Your task to perform on an android device: turn off priority inbox in the gmail app Image 0: 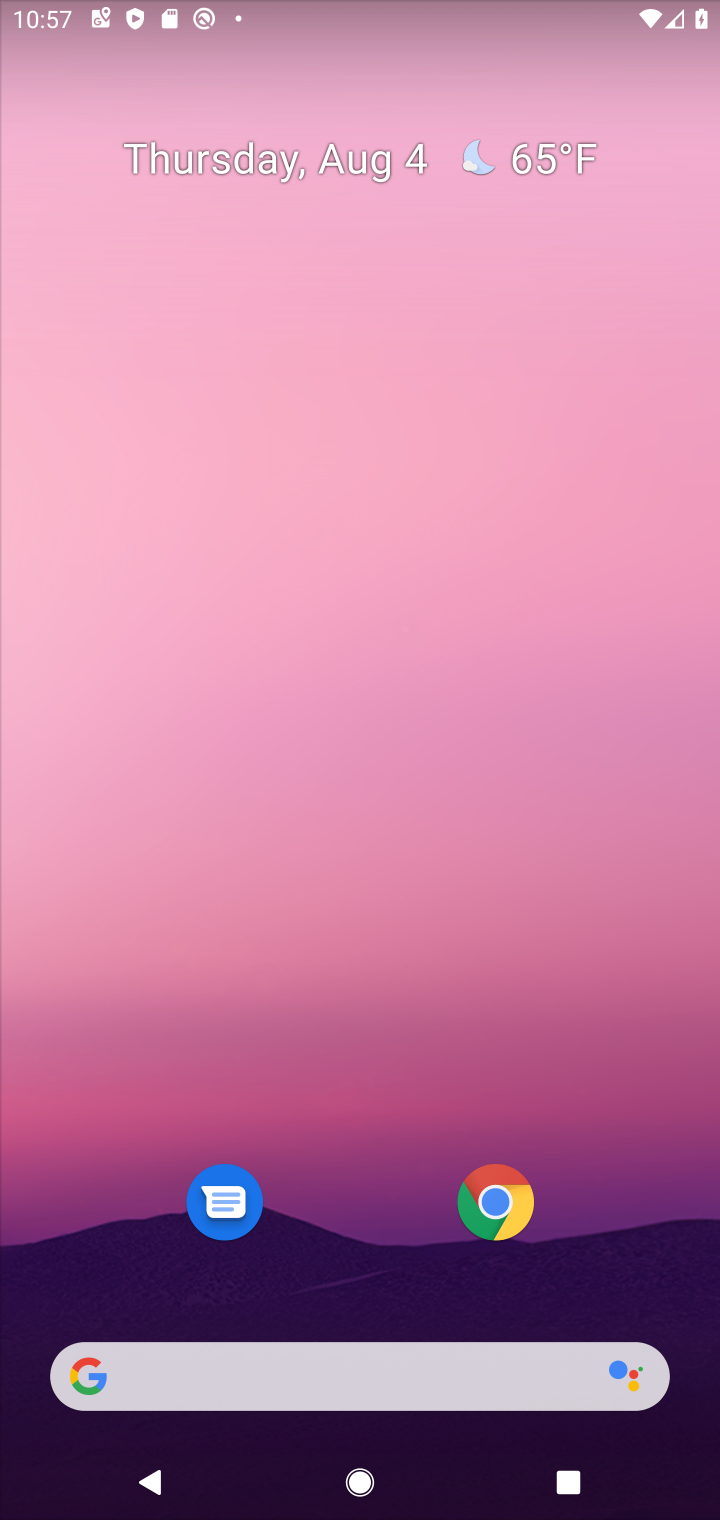
Step 0: drag from (334, 1088) to (330, 356)
Your task to perform on an android device: turn off priority inbox in the gmail app Image 1: 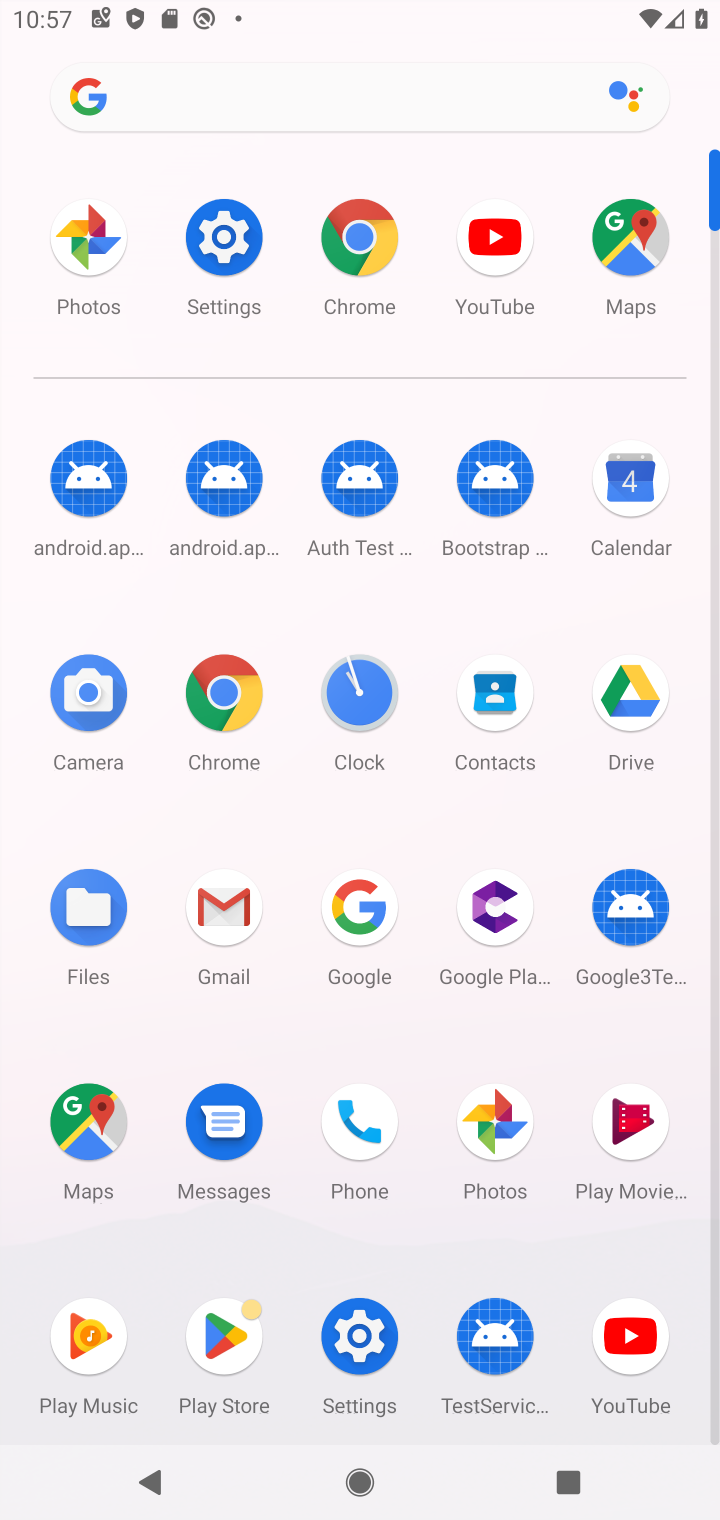
Step 1: click (193, 895)
Your task to perform on an android device: turn off priority inbox in the gmail app Image 2: 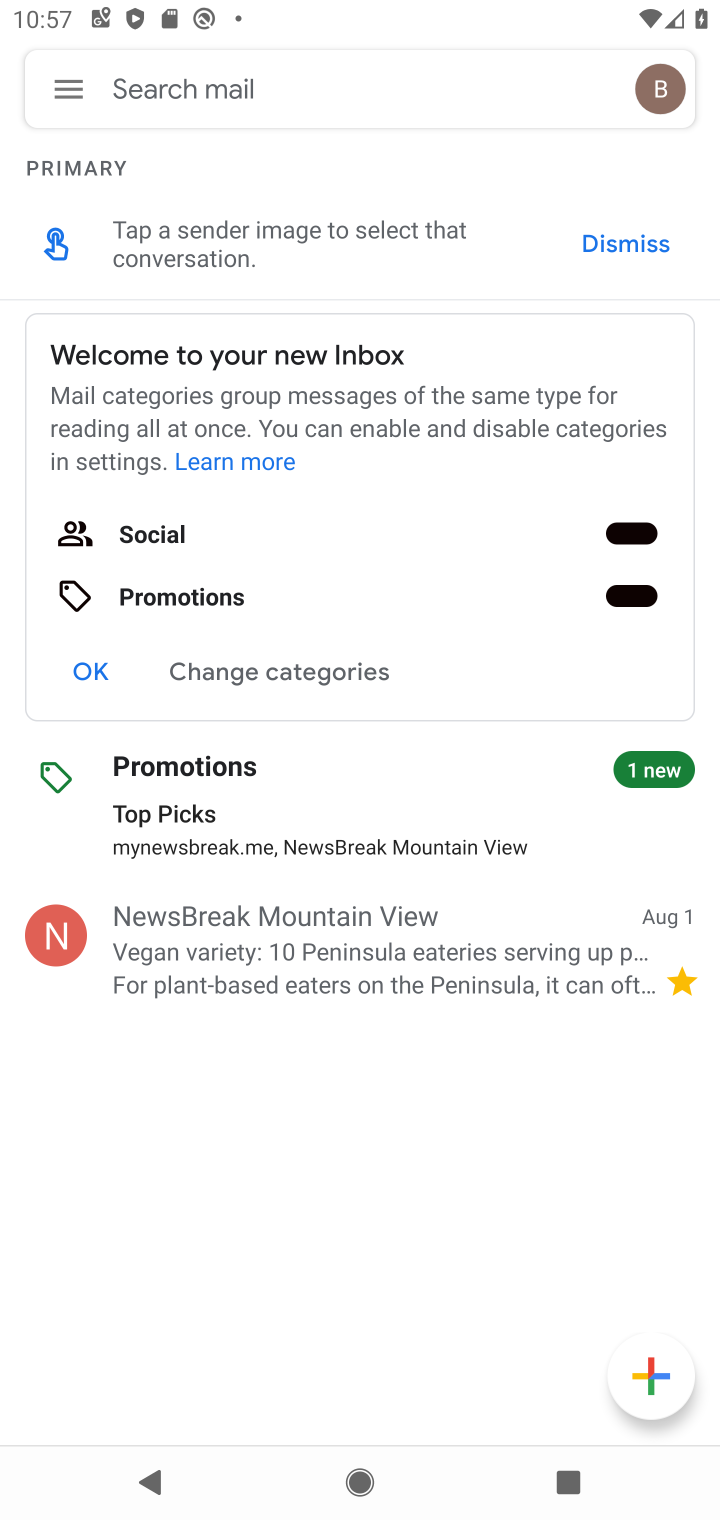
Step 2: click (69, 90)
Your task to perform on an android device: turn off priority inbox in the gmail app Image 3: 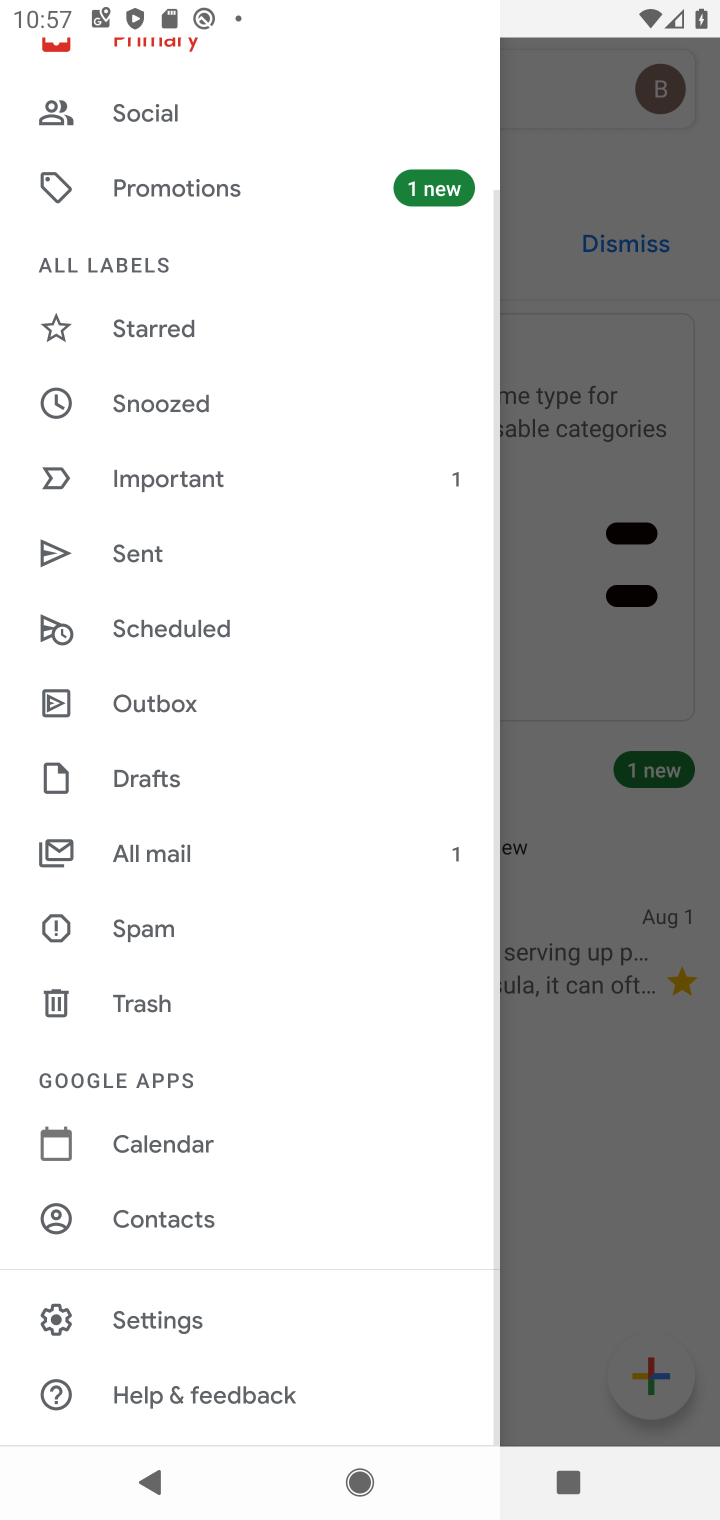
Step 3: click (150, 1343)
Your task to perform on an android device: turn off priority inbox in the gmail app Image 4: 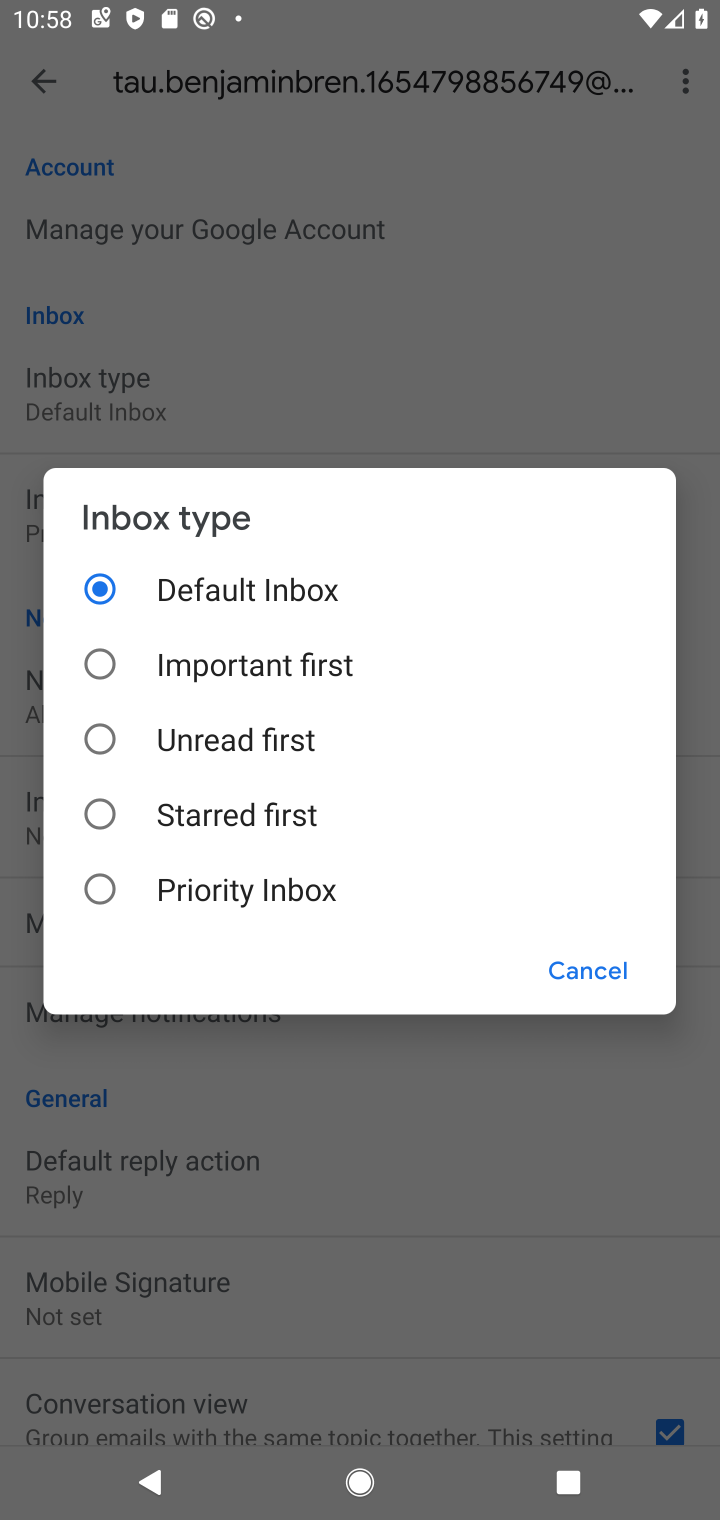
Step 4: task complete